Your task to perform on an android device: find photos in the google photos app Image 0: 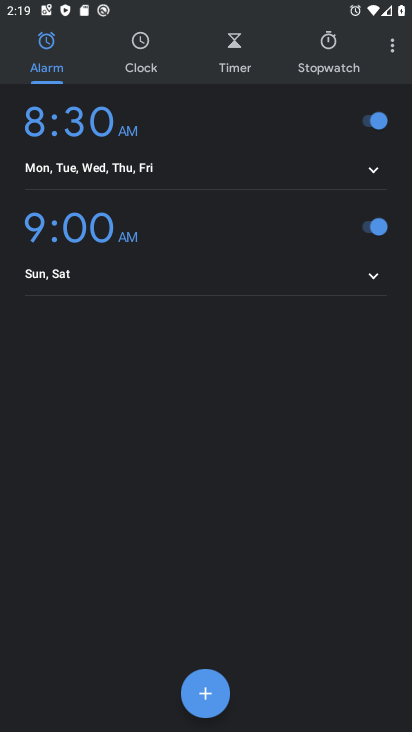
Step 0: press home button
Your task to perform on an android device: find photos in the google photos app Image 1: 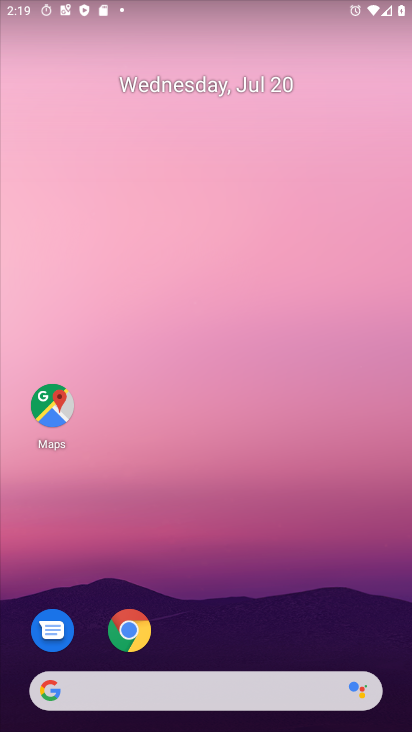
Step 1: drag from (176, 686) to (302, 213)
Your task to perform on an android device: find photos in the google photos app Image 2: 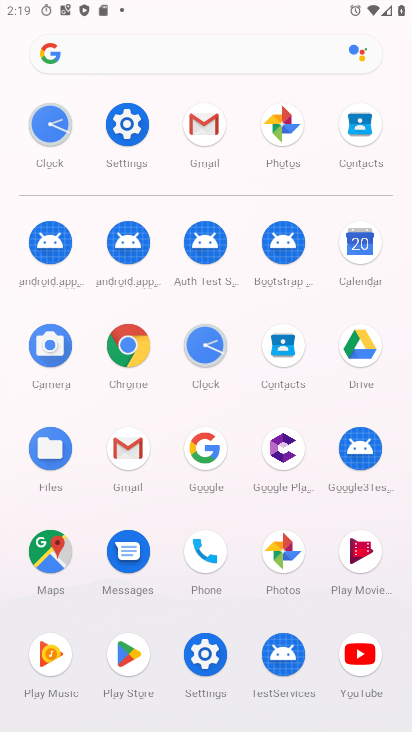
Step 2: click (290, 549)
Your task to perform on an android device: find photos in the google photos app Image 3: 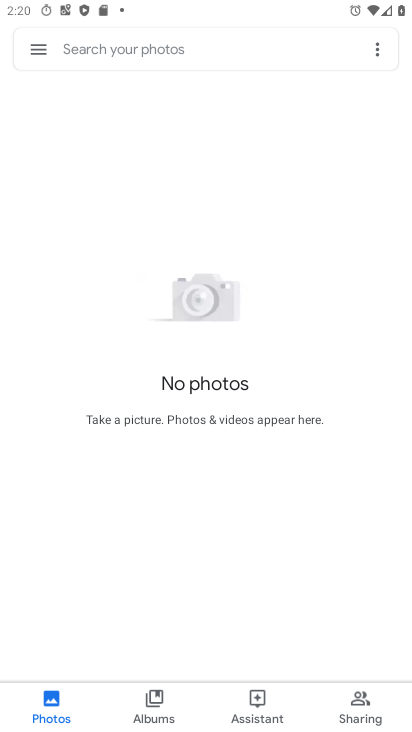
Step 3: task complete